Your task to perform on an android device: set default search engine in the chrome app Image 0: 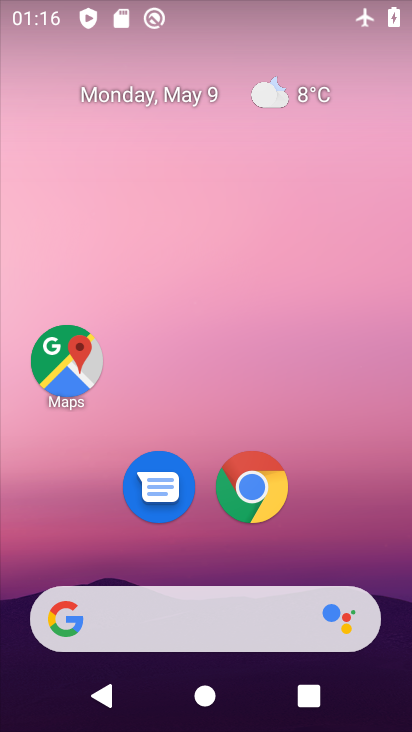
Step 0: drag from (377, 532) to (338, 118)
Your task to perform on an android device: set default search engine in the chrome app Image 1: 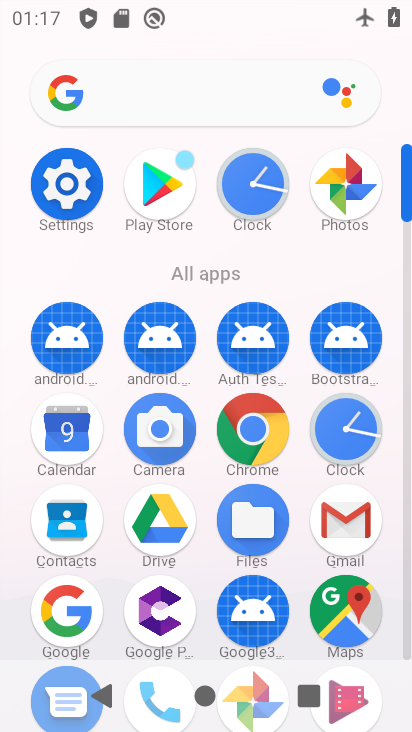
Step 1: click (246, 440)
Your task to perform on an android device: set default search engine in the chrome app Image 2: 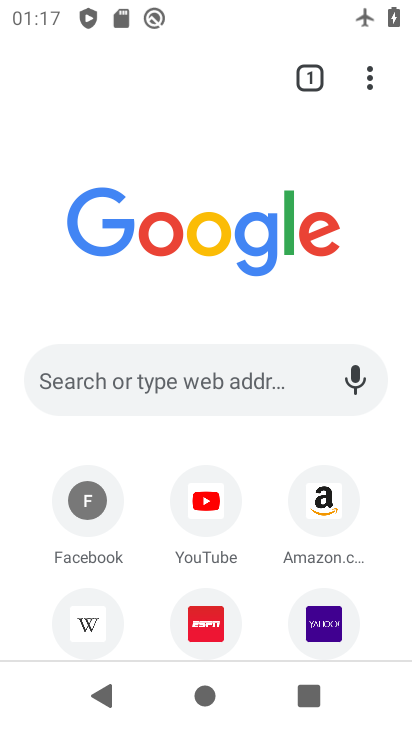
Step 2: click (366, 79)
Your task to perform on an android device: set default search engine in the chrome app Image 3: 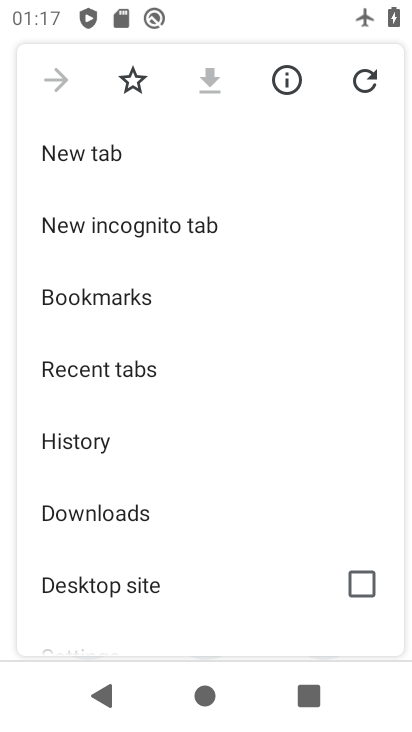
Step 3: drag from (136, 550) to (178, 244)
Your task to perform on an android device: set default search engine in the chrome app Image 4: 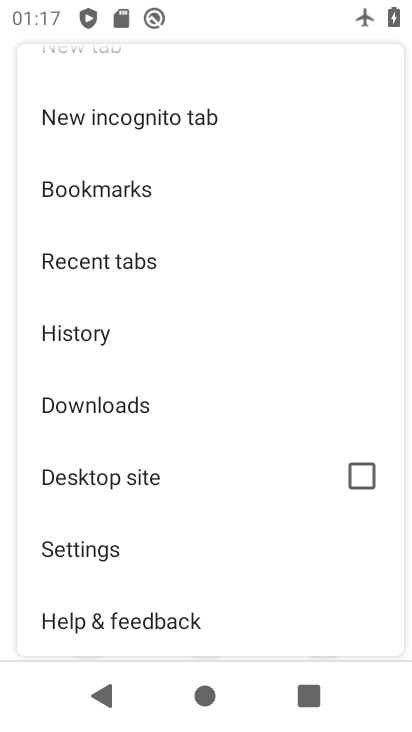
Step 4: click (160, 556)
Your task to perform on an android device: set default search engine in the chrome app Image 5: 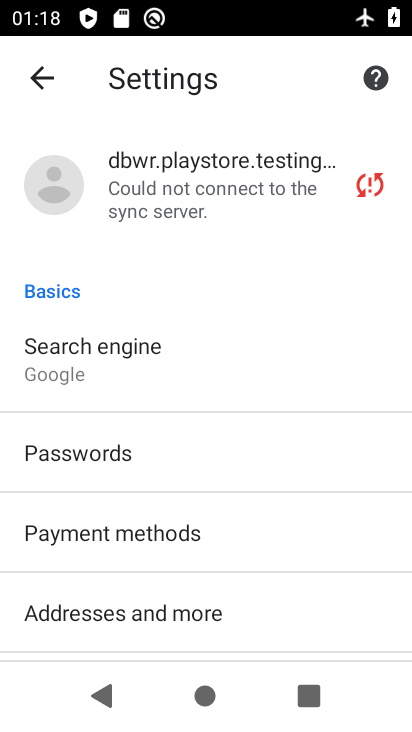
Step 5: click (139, 384)
Your task to perform on an android device: set default search engine in the chrome app Image 6: 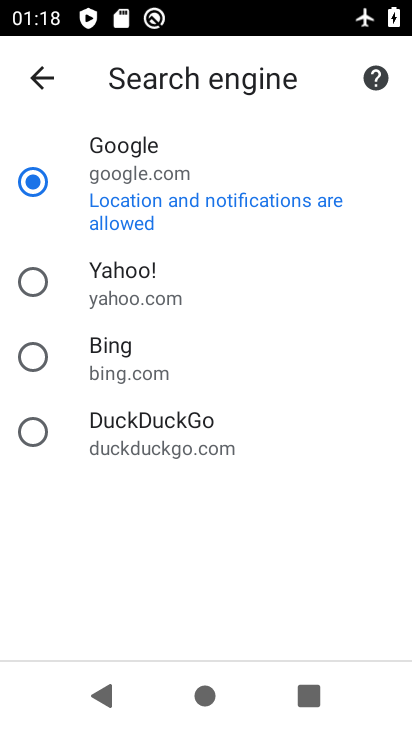
Step 6: click (114, 359)
Your task to perform on an android device: set default search engine in the chrome app Image 7: 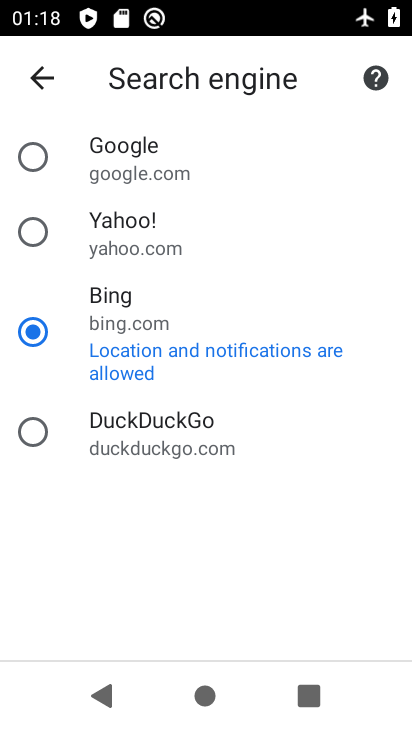
Step 7: task complete